Your task to perform on an android device: Go to Reddit.com Image 0: 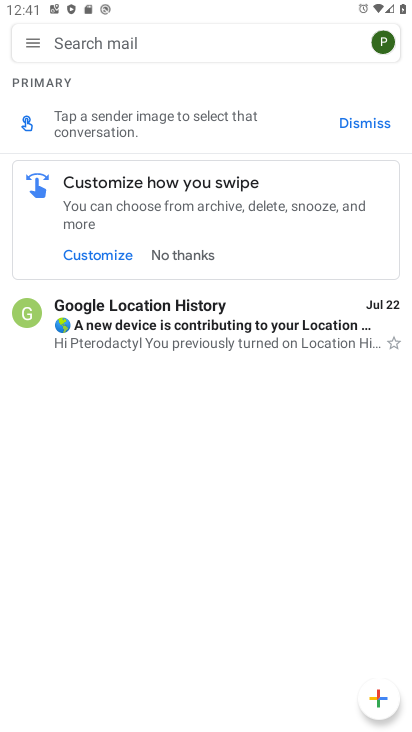
Step 0: press home button
Your task to perform on an android device: Go to Reddit.com Image 1: 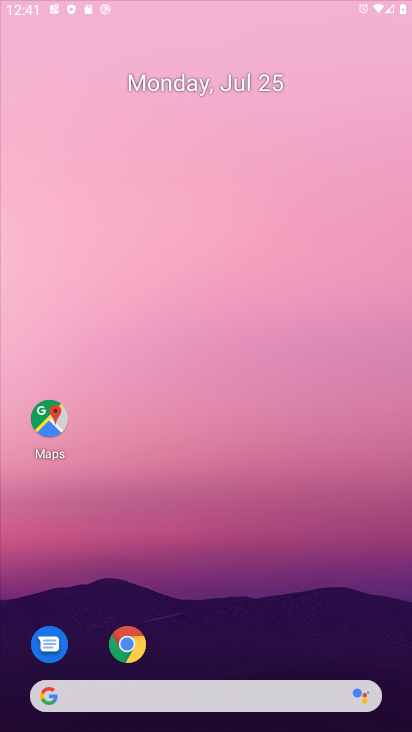
Step 1: drag from (373, 675) to (218, 67)
Your task to perform on an android device: Go to Reddit.com Image 2: 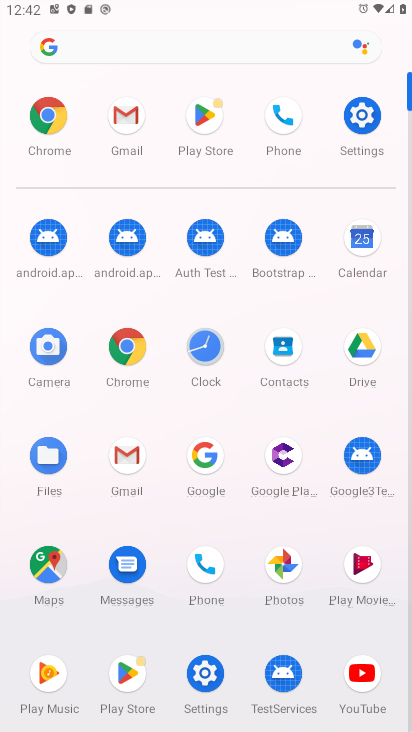
Step 2: click (199, 464)
Your task to perform on an android device: Go to Reddit.com Image 3: 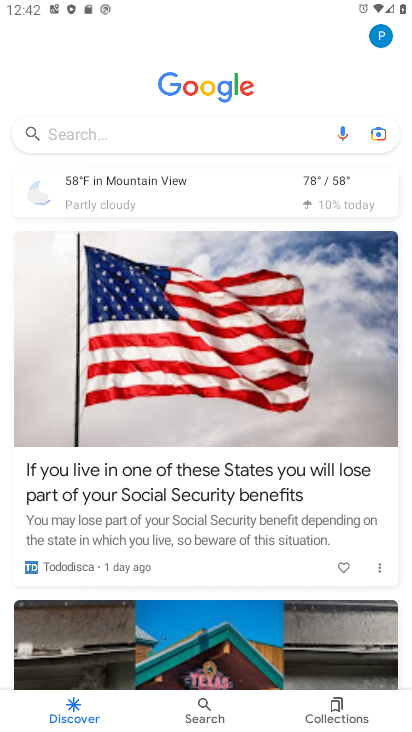
Step 3: click (107, 145)
Your task to perform on an android device: Go to Reddit.com Image 4: 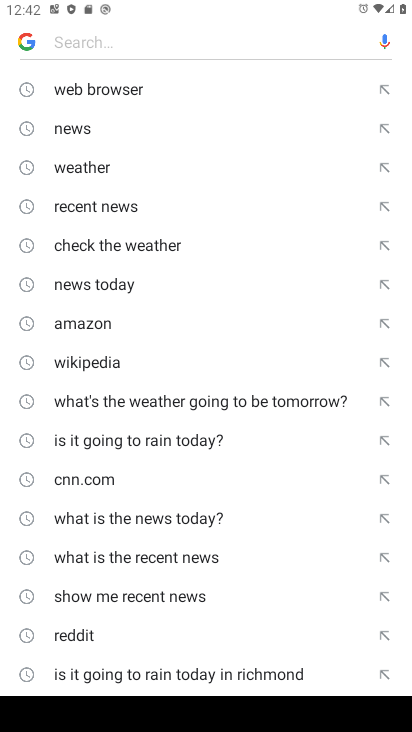
Step 4: click (91, 637)
Your task to perform on an android device: Go to Reddit.com Image 5: 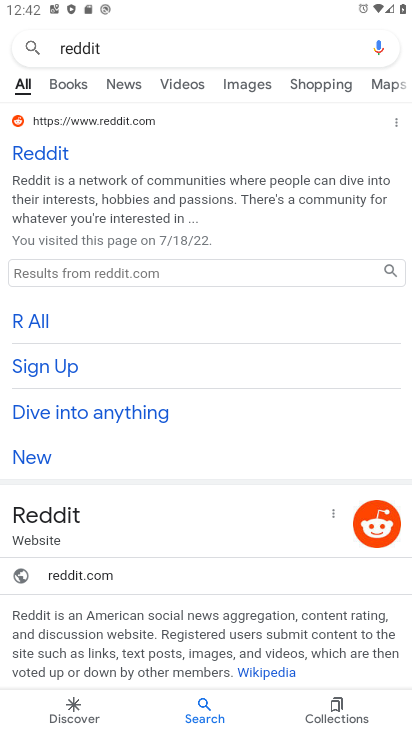
Step 5: task complete